Your task to perform on an android device: What's the weather going to be tomorrow? Image 0: 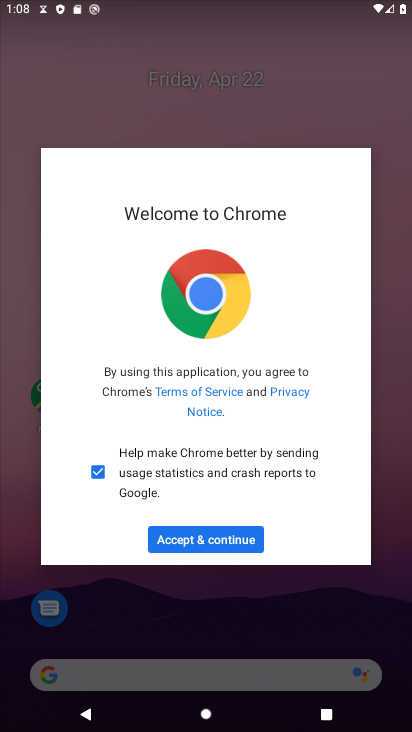
Step 0: press home button
Your task to perform on an android device: What's the weather going to be tomorrow? Image 1: 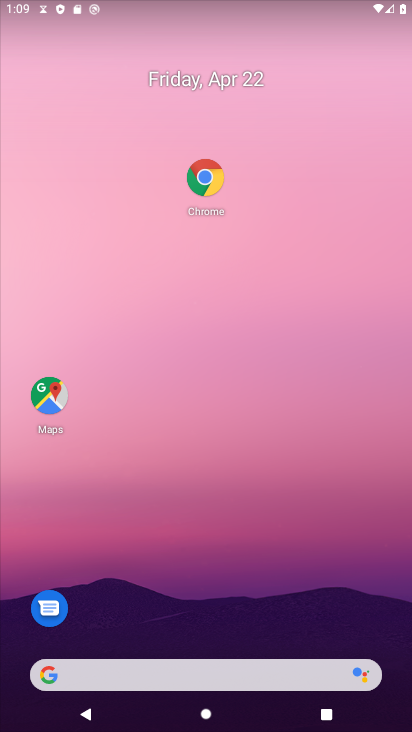
Step 1: drag from (140, 318) to (379, 332)
Your task to perform on an android device: What's the weather going to be tomorrow? Image 2: 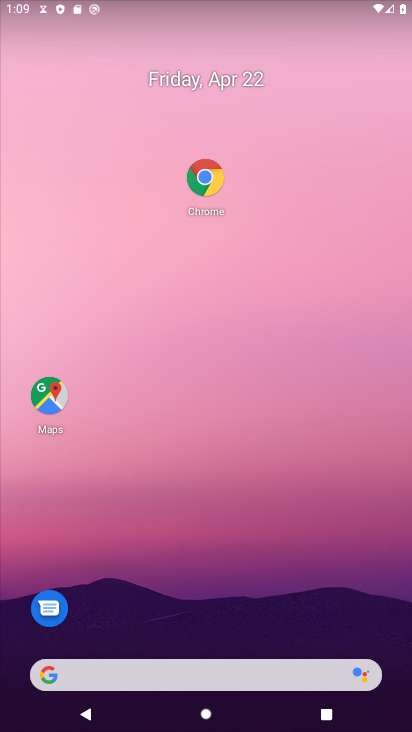
Step 2: drag from (105, 309) to (358, 265)
Your task to perform on an android device: What's the weather going to be tomorrow? Image 3: 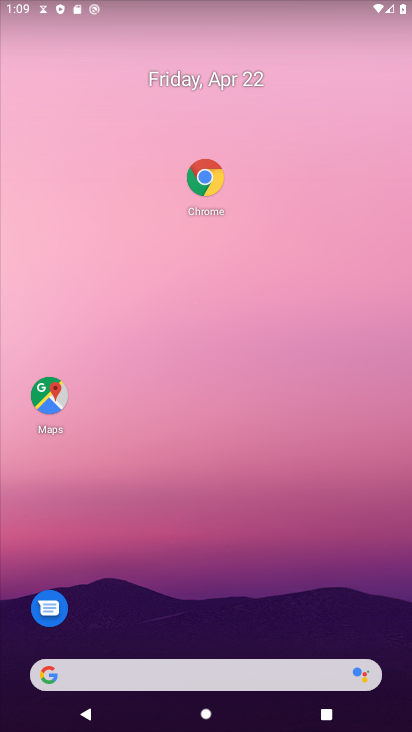
Step 3: drag from (62, 239) to (393, 213)
Your task to perform on an android device: What's the weather going to be tomorrow? Image 4: 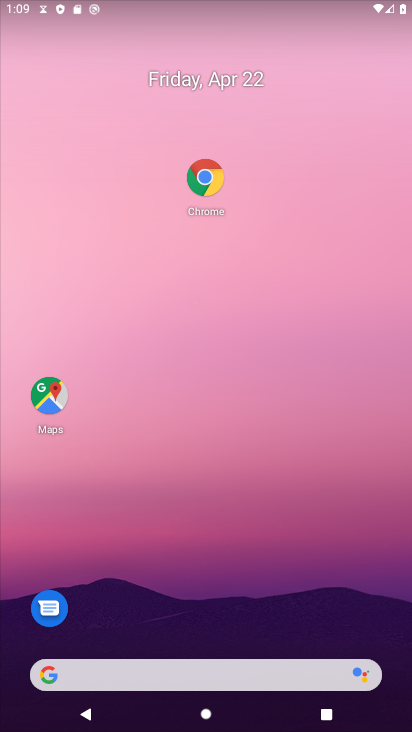
Step 4: drag from (1, 281) to (390, 271)
Your task to perform on an android device: What's the weather going to be tomorrow? Image 5: 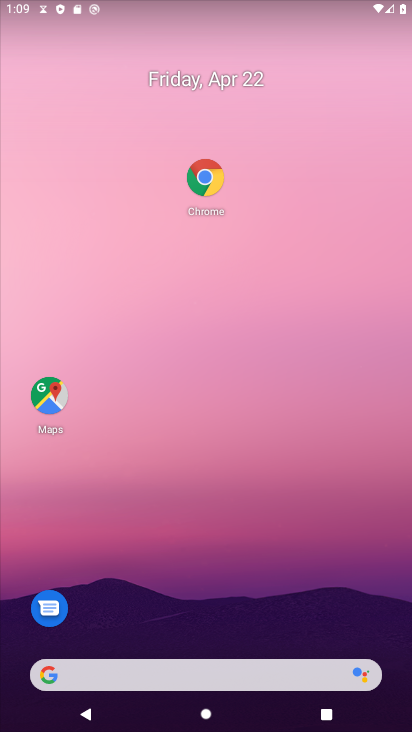
Step 5: drag from (220, 217) to (401, 225)
Your task to perform on an android device: What's the weather going to be tomorrow? Image 6: 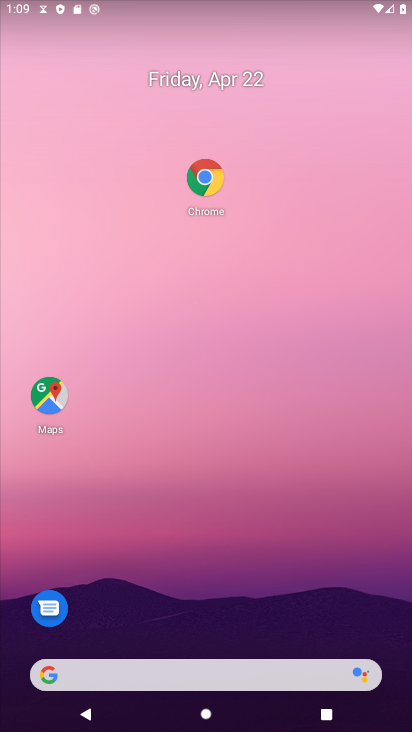
Step 6: drag from (180, 674) to (291, 230)
Your task to perform on an android device: What's the weather going to be tomorrow? Image 7: 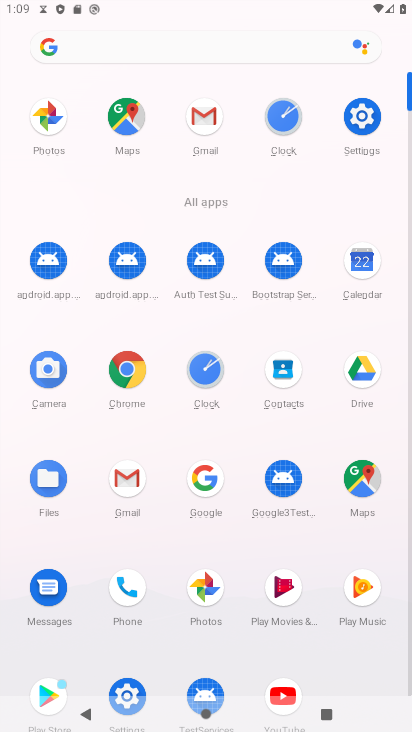
Step 7: drag from (210, 573) to (324, 281)
Your task to perform on an android device: What's the weather going to be tomorrow? Image 8: 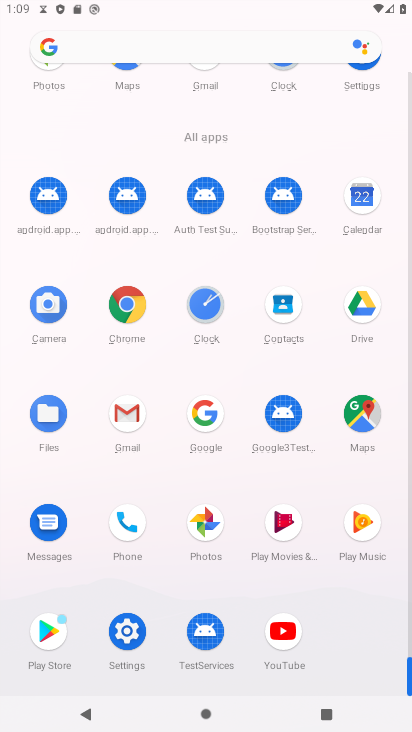
Step 8: click (206, 422)
Your task to perform on an android device: What's the weather going to be tomorrow? Image 9: 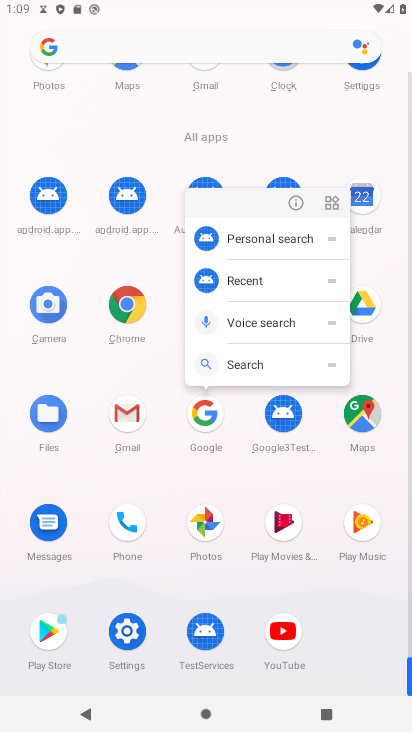
Step 9: click (208, 406)
Your task to perform on an android device: What's the weather going to be tomorrow? Image 10: 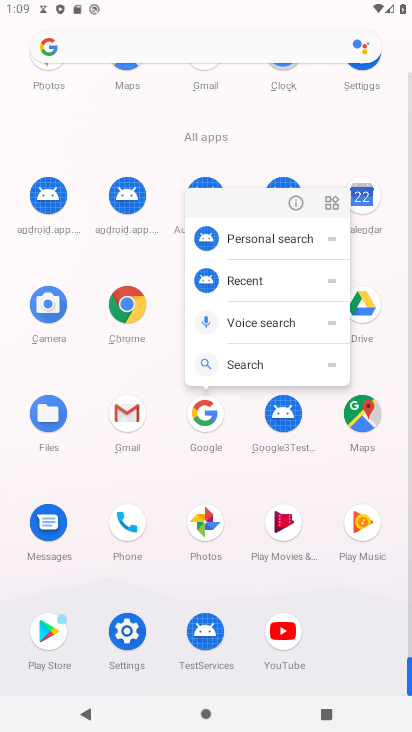
Step 10: click (207, 417)
Your task to perform on an android device: What's the weather going to be tomorrow? Image 11: 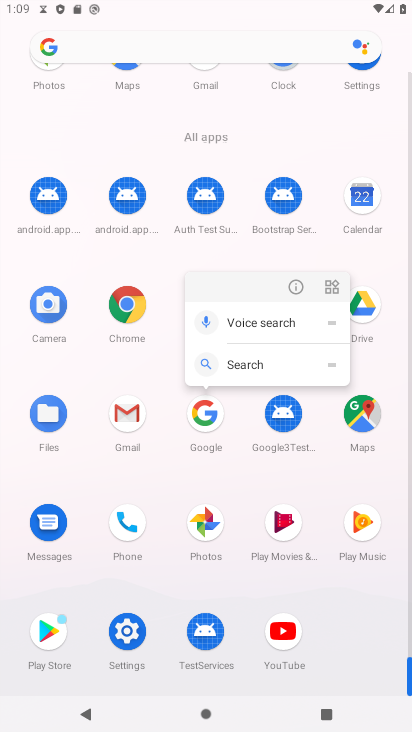
Step 11: click (207, 423)
Your task to perform on an android device: What's the weather going to be tomorrow? Image 12: 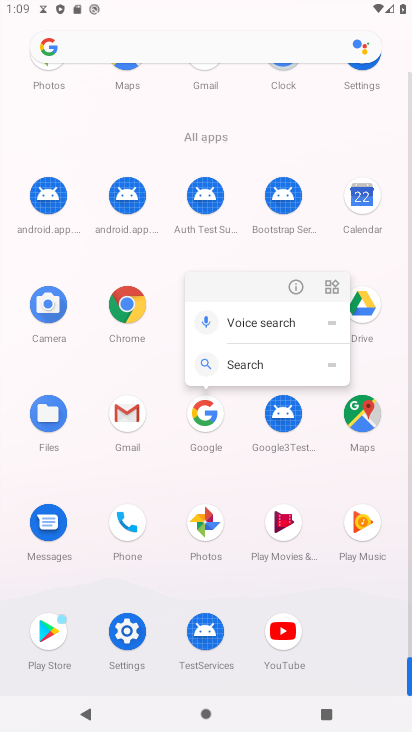
Step 12: click (210, 416)
Your task to perform on an android device: What's the weather going to be tomorrow? Image 13: 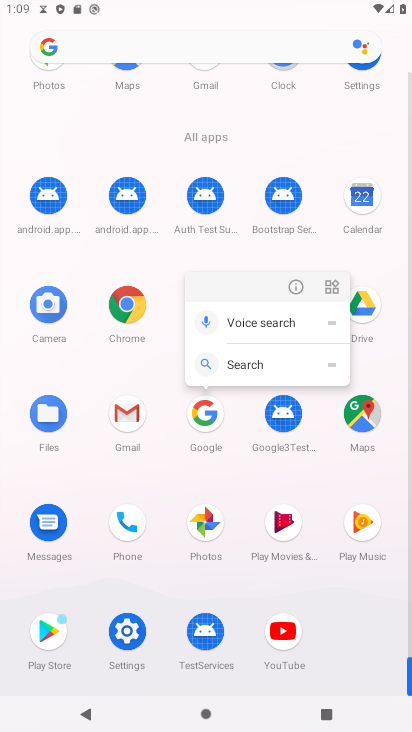
Step 13: click (203, 413)
Your task to perform on an android device: What's the weather going to be tomorrow? Image 14: 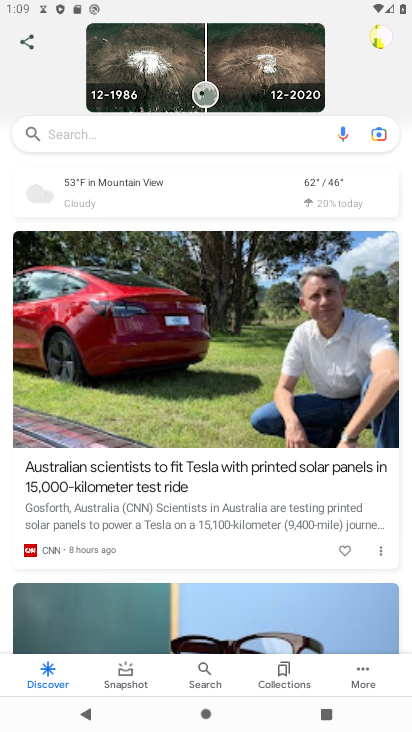
Step 14: click (309, 186)
Your task to perform on an android device: What's the weather going to be tomorrow? Image 15: 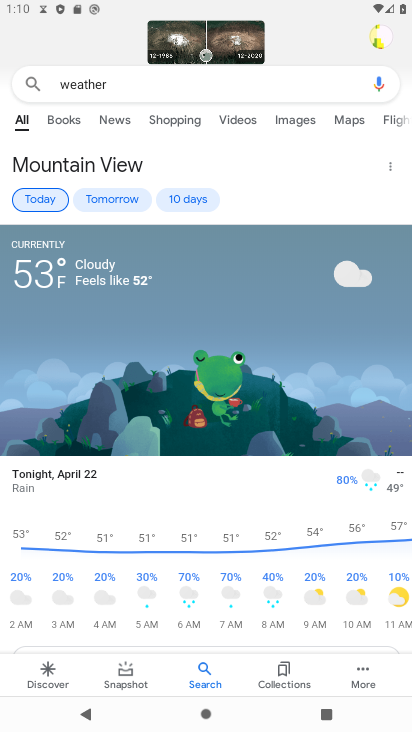
Step 15: click (120, 201)
Your task to perform on an android device: What's the weather going to be tomorrow? Image 16: 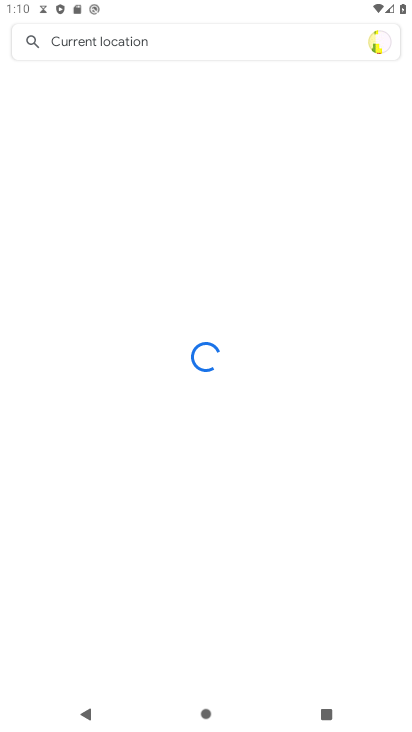
Step 16: click (115, 194)
Your task to perform on an android device: What's the weather going to be tomorrow? Image 17: 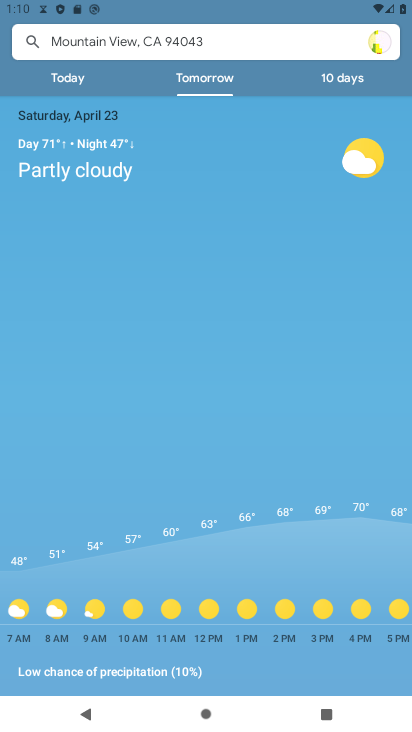
Step 17: task complete